Your task to perform on an android device: Clear the shopping cart on bestbuy.com. Image 0: 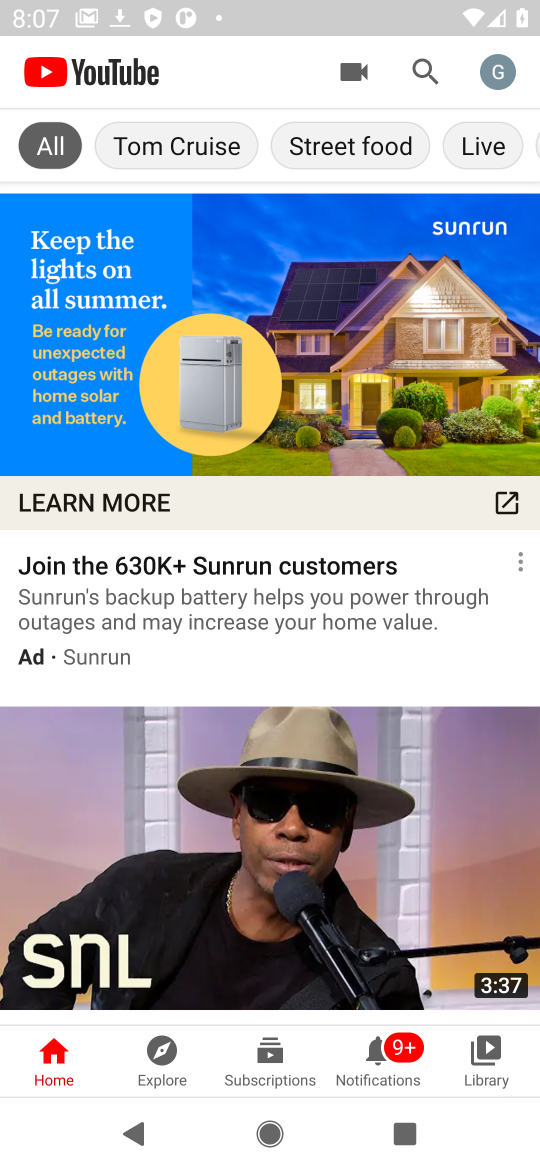
Step 0: press home button
Your task to perform on an android device: Clear the shopping cart on bestbuy.com. Image 1: 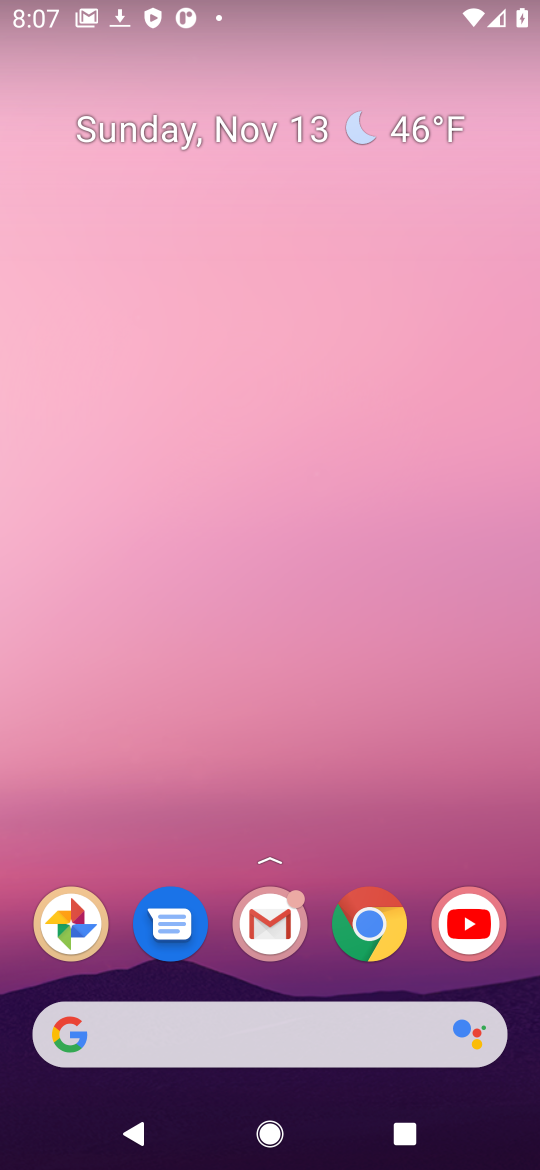
Step 1: click (246, 1018)
Your task to perform on an android device: Clear the shopping cart on bestbuy.com. Image 2: 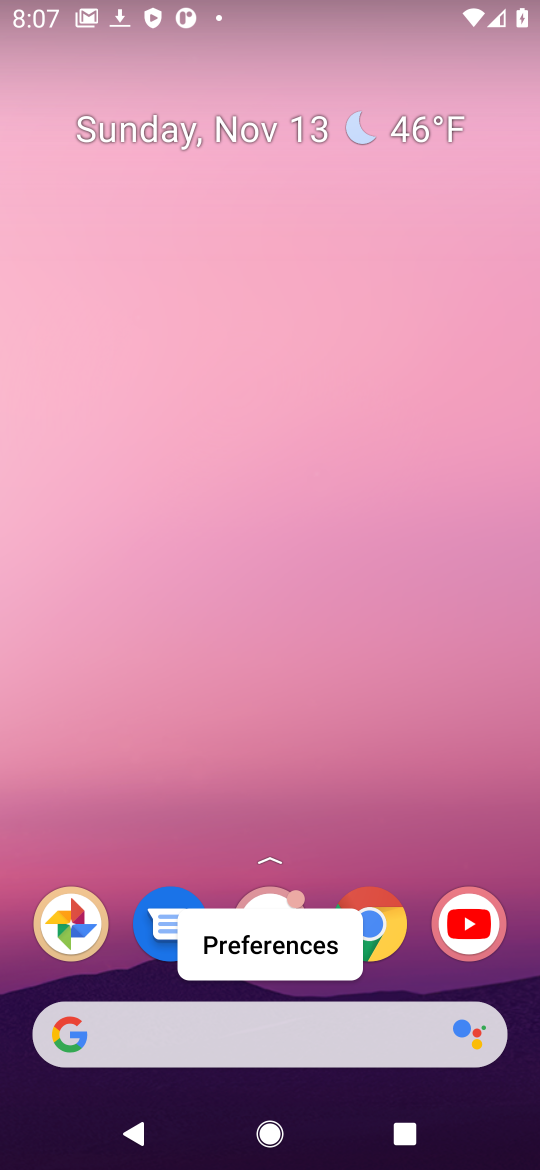
Step 2: click (228, 1033)
Your task to perform on an android device: Clear the shopping cart on bestbuy.com. Image 3: 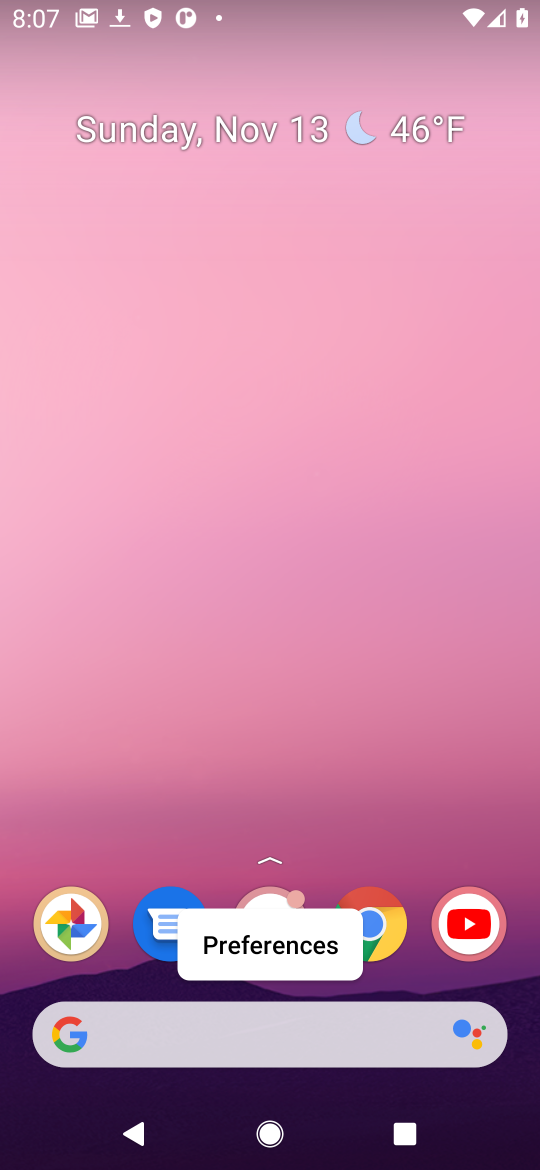
Step 3: click (78, 1027)
Your task to perform on an android device: Clear the shopping cart on bestbuy.com. Image 4: 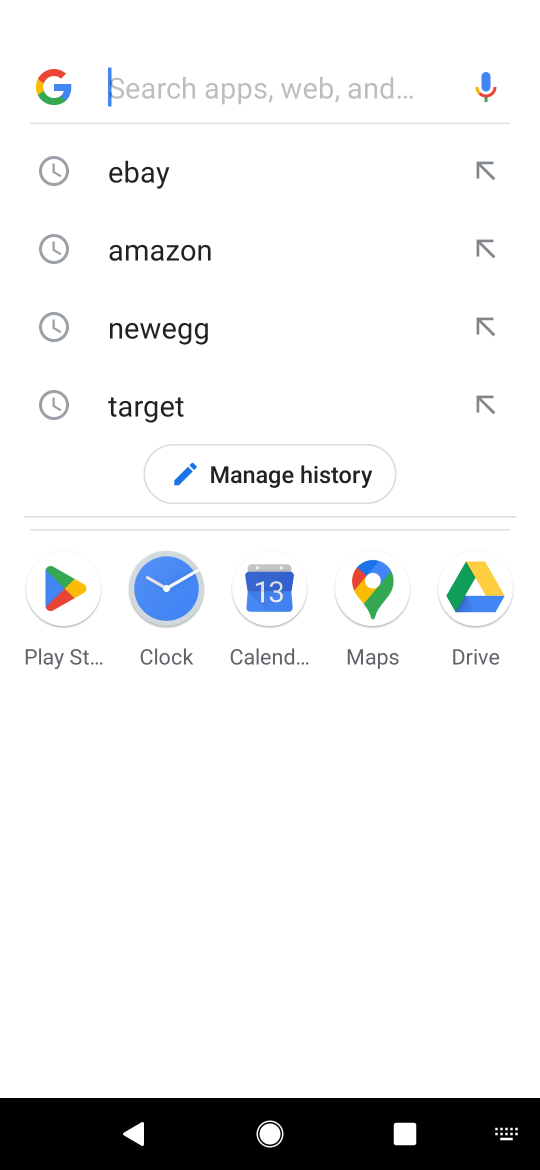
Step 4: type " bestbuy.com"
Your task to perform on an android device: Clear the shopping cart on bestbuy.com. Image 5: 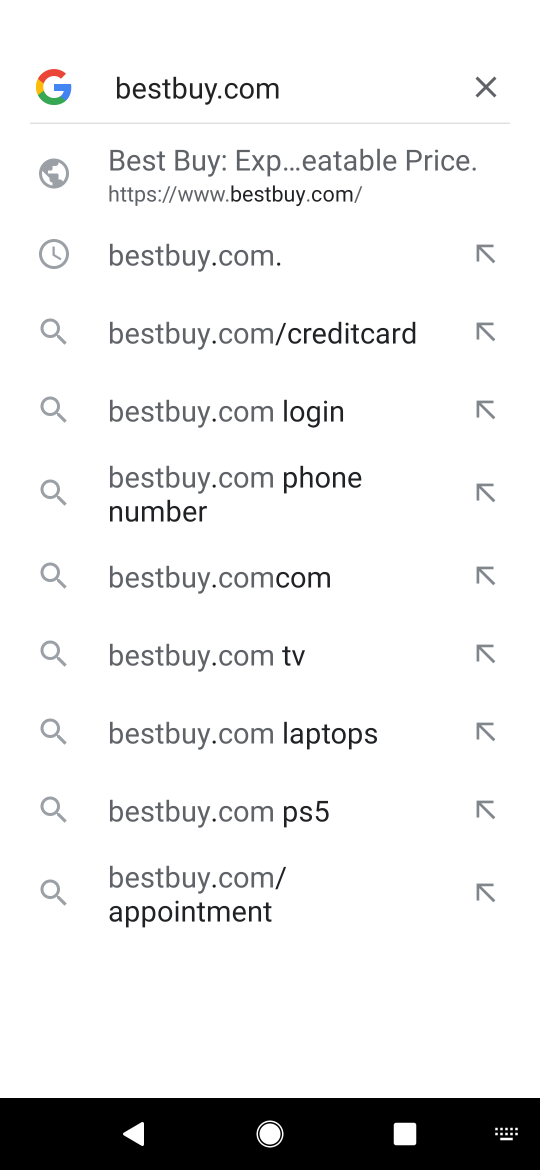
Step 5: press enter
Your task to perform on an android device: Clear the shopping cart on bestbuy.com. Image 6: 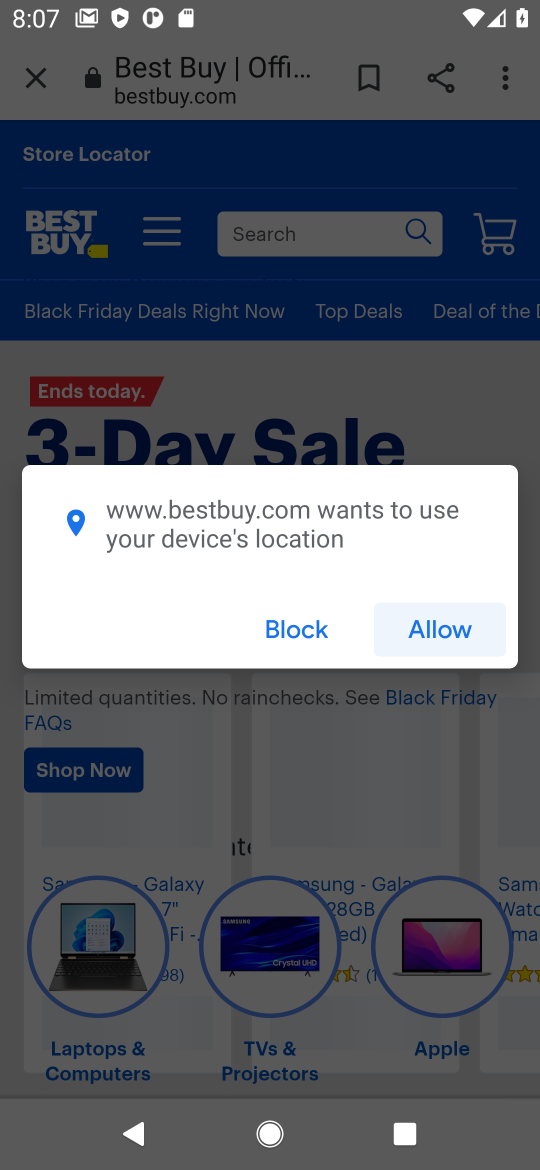
Step 6: click (435, 625)
Your task to perform on an android device: Clear the shopping cart on bestbuy.com. Image 7: 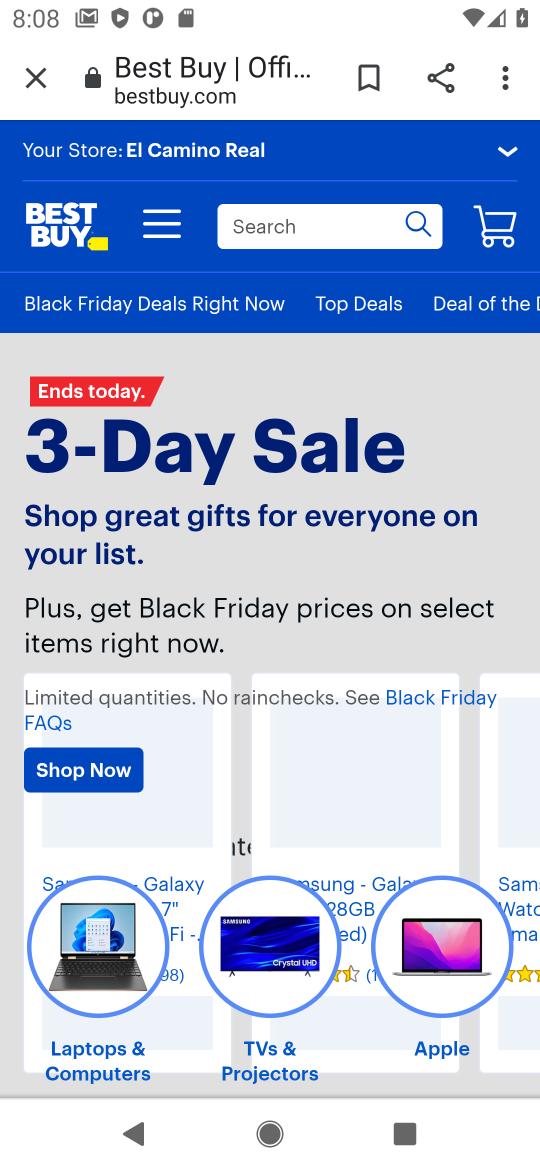
Step 7: click (500, 227)
Your task to perform on an android device: Clear the shopping cart on bestbuy.com. Image 8: 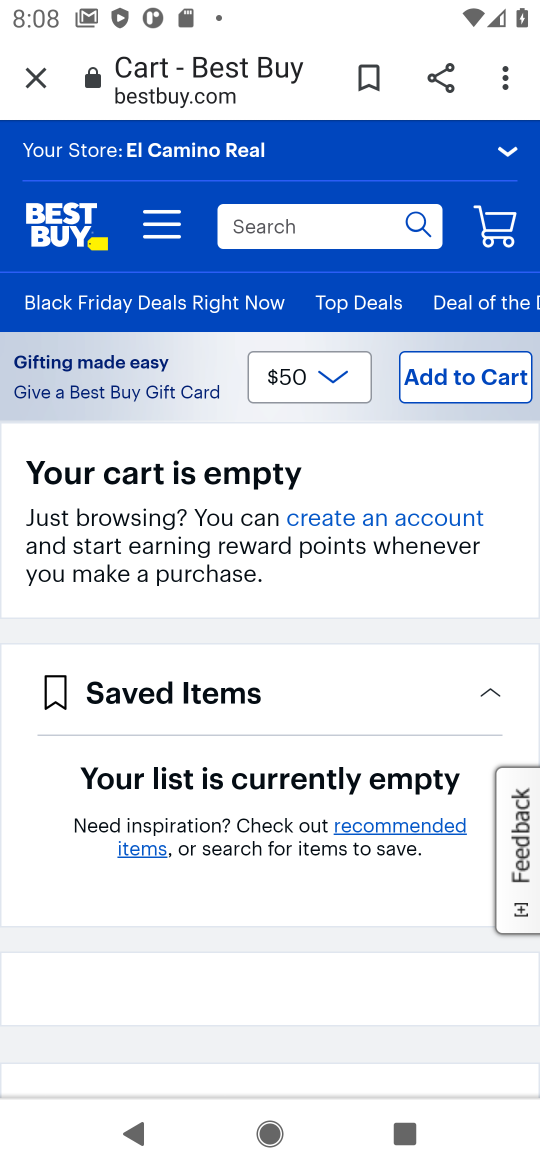
Step 8: task complete